Your task to perform on an android device: Show me popular games on the Play Store Image 0: 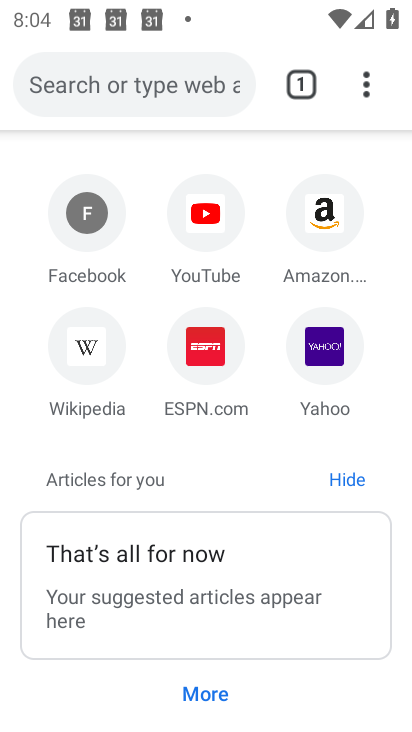
Step 0: press home button
Your task to perform on an android device: Show me popular games on the Play Store Image 1: 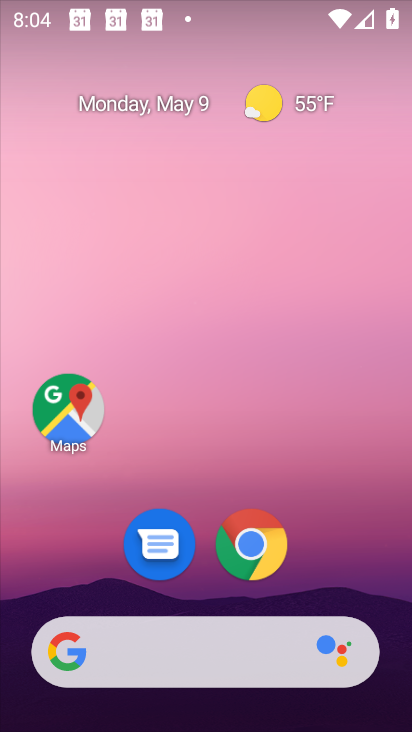
Step 1: drag from (200, 594) to (200, 209)
Your task to perform on an android device: Show me popular games on the Play Store Image 2: 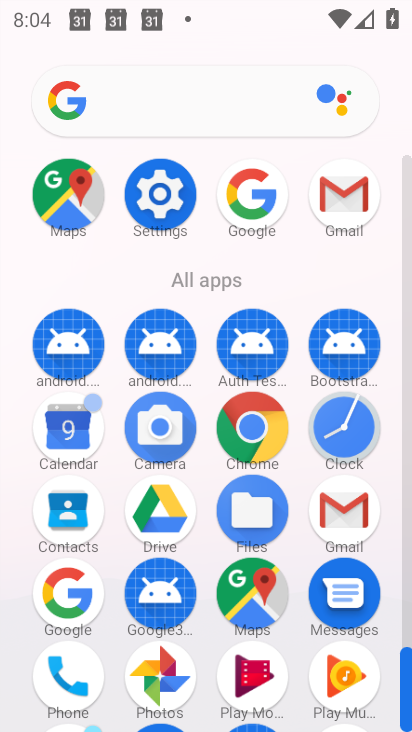
Step 2: drag from (202, 643) to (219, 244)
Your task to perform on an android device: Show me popular games on the Play Store Image 3: 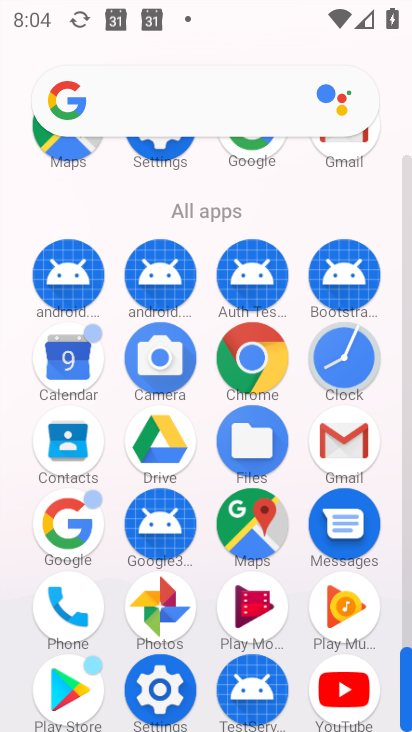
Step 3: click (70, 665)
Your task to perform on an android device: Show me popular games on the Play Store Image 4: 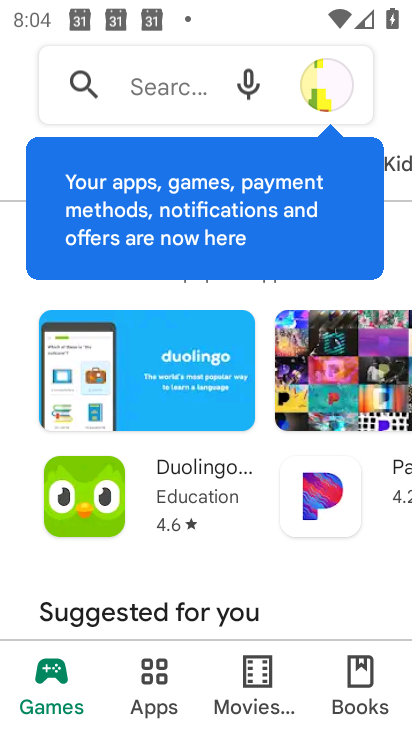
Step 4: click (321, 202)
Your task to perform on an android device: Show me popular games on the Play Store Image 5: 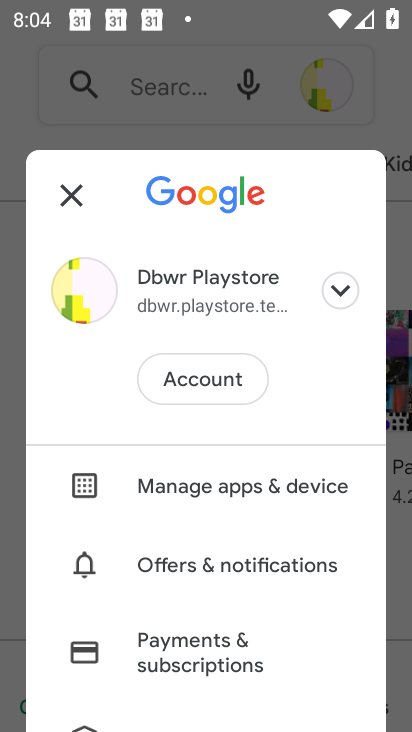
Step 5: click (58, 195)
Your task to perform on an android device: Show me popular games on the Play Store Image 6: 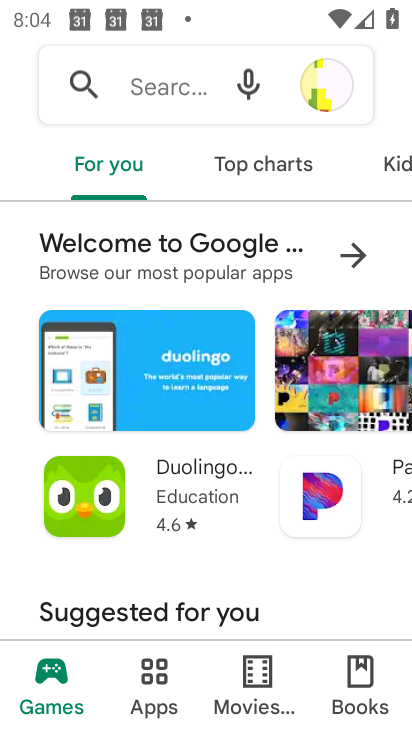
Step 6: drag from (280, 167) to (90, 175)
Your task to perform on an android device: Show me popular games on the Play Store Image 7: 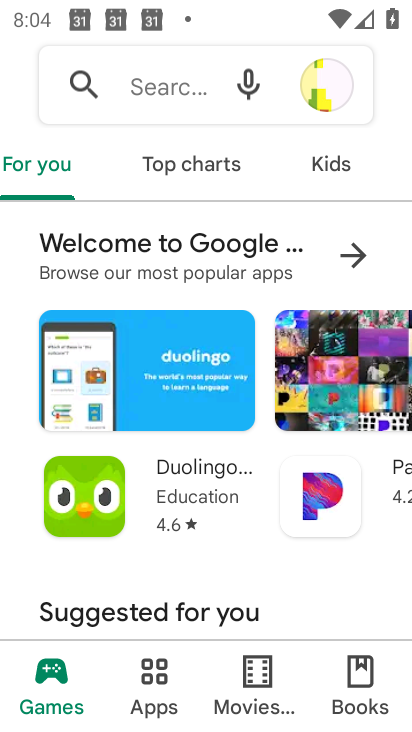
Step 7: click (155, 161)
Your task to perform on an android device: Show me popular games on the Play Store Image 8: 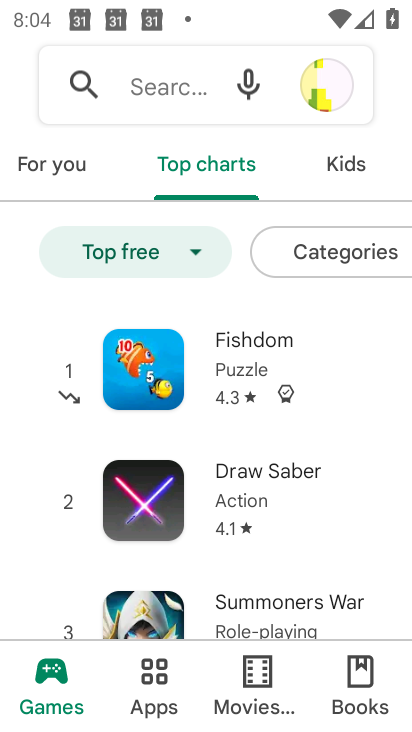
Step 8: drag from (322, 586) to (322, 495)
Your task to perform on an android device: Show me popular games on the Play Store Image 9: 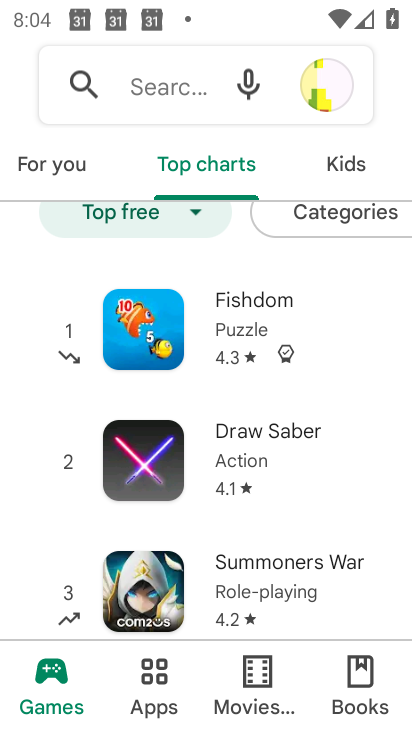
Step 9: click (202, 213)
Your task to perform on an android device: Show me popular games on the Play Store Image 10: 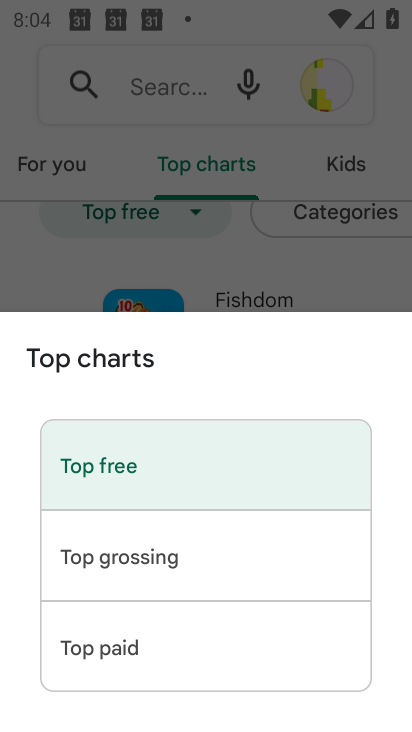
Step 10: click (202, 213)
Your task to perform on an android device: Show me popular games on the Play Store Image 11: 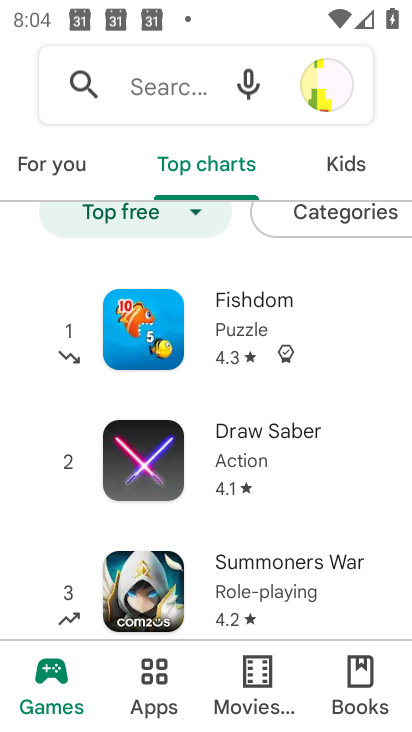
Step 11: drag from (316, 366) to (314, 582)
Your task to perform on an android device: Show me popular games on the Play Store Image 12: 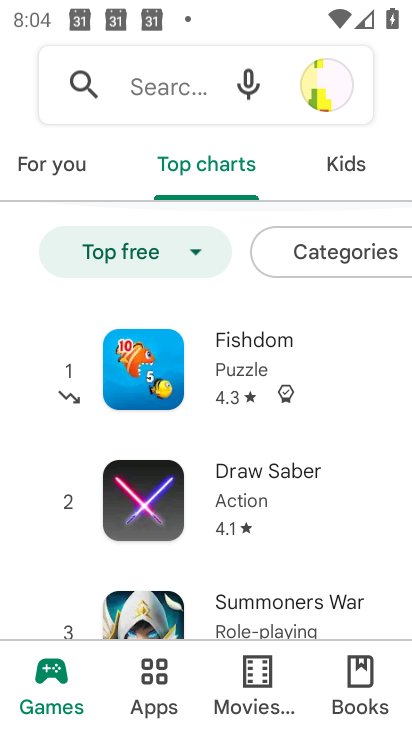
Step 12: drag from (355, 222) to (42, 234)
Your task to perform on an android device: Show me popular games on the Play Store Image 13: 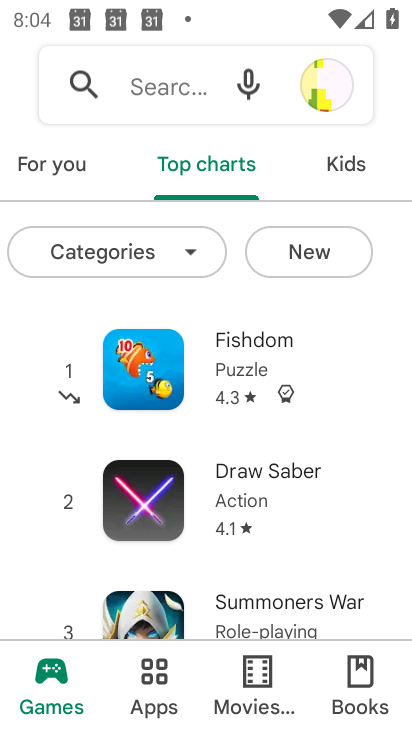
Step 13: drag from (236, 242) to (61, 251)
Your task to perform on an android device: Show me popular games on the Play Store Image 14: 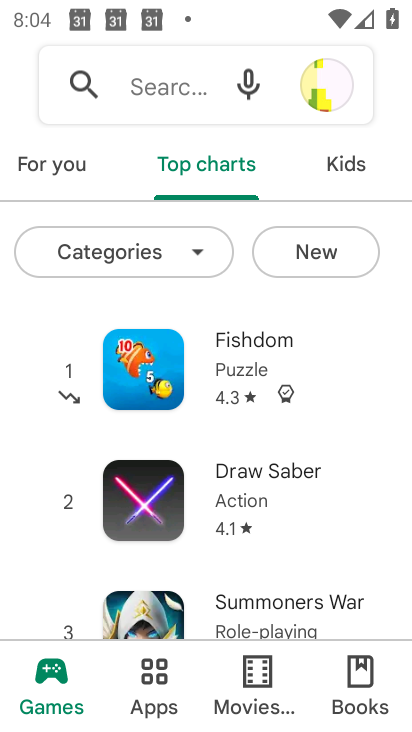
Step 14: click (186, 243)
Your task to perform on an android device: Show me popular games on the Play Store Image 15: 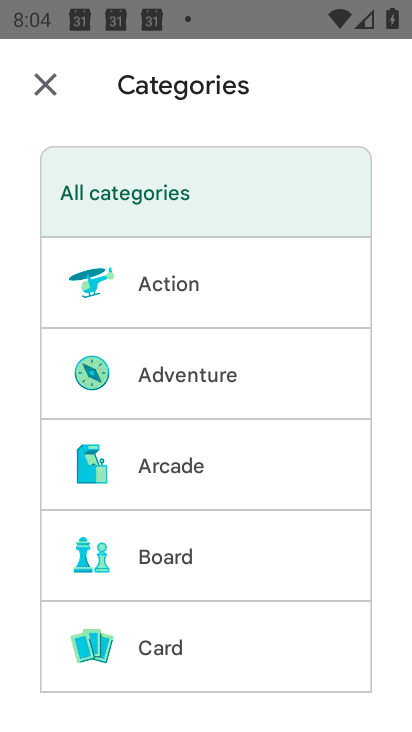
Step 15: drag from (214, 638) to (268, 307)
Your task to perform on an android device: Show me popular games on the Play Store Image 16: 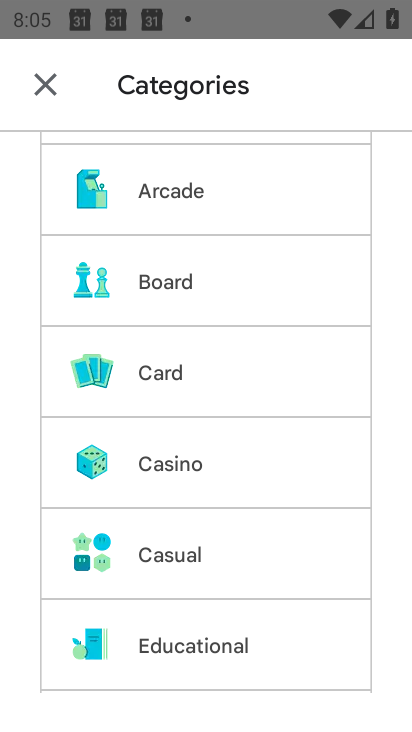
Step 16: drag from (222, 632) to (264, 247)
Your task to perform on an android device: Show me popular games on the Play Store Image 17: 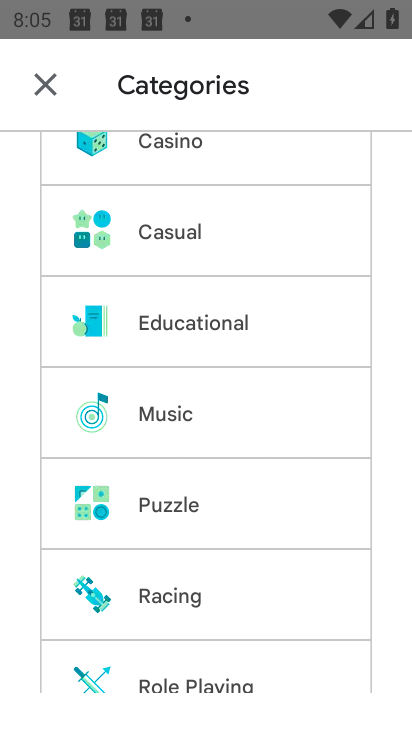
Step 17: drag from (240, 615) to (263, 229)
Your task to perform on an android device: Show me popular games on the Play Store Image 18: 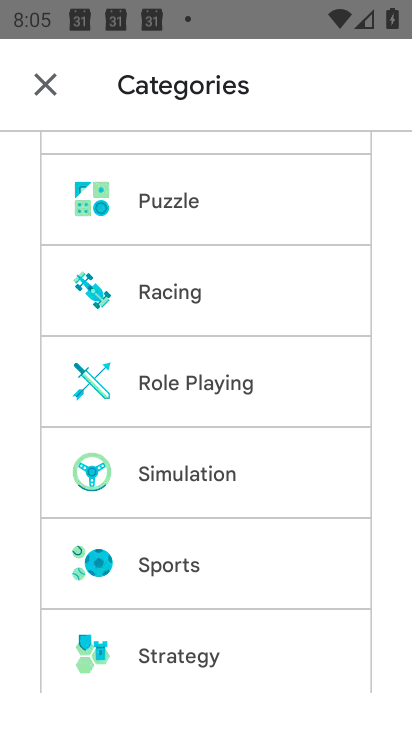
Step 18: drag from (230, 544) to (277, 242)
Your task to perform on an android device: Show me popular games on the Play Store Image 19: 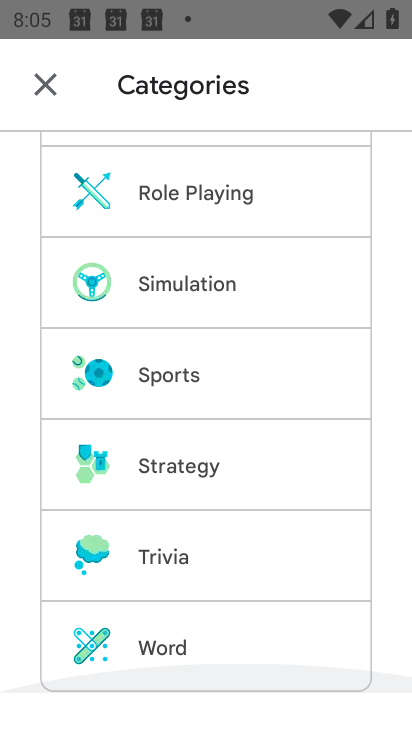
Step 19: drag from (231, 588) to (259, 254)
Your task to perform on an android device: Show me popular games on the Play Store Image 20: 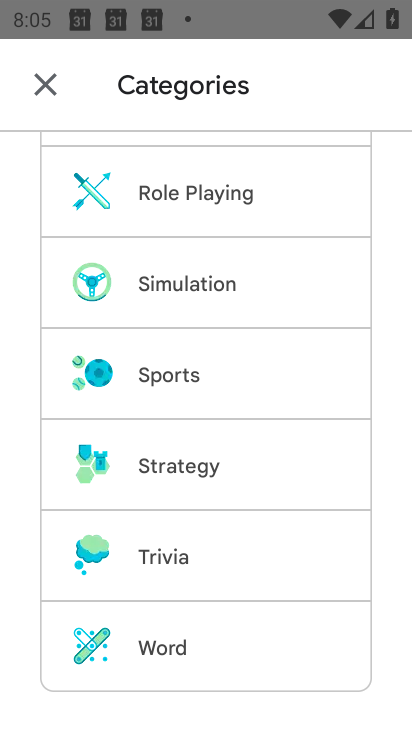
Step 20: click (51, 98)
Your task to perform on an android device: Show me popular games on the Play Store Image 21: 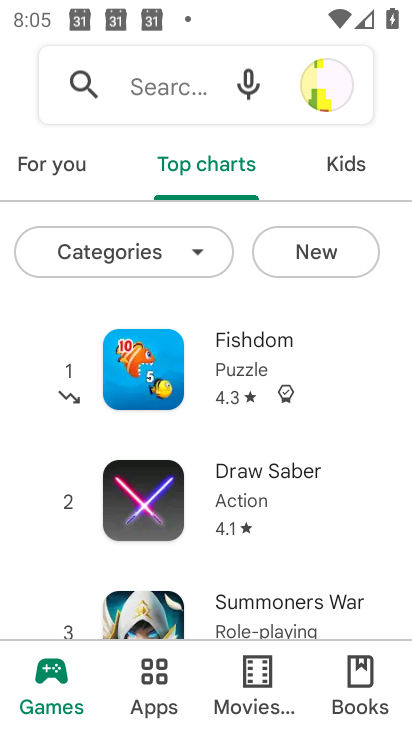
Step 21: task complete